Your task to perform on an android device: toggle wifi Image 0: 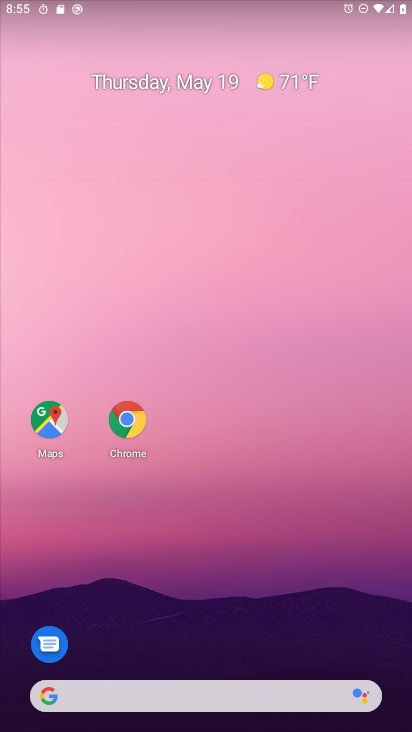
Step 0: drag from (164, 659) to (226, 217)
Your task to perform on an android device: toggle wifi Image 1: 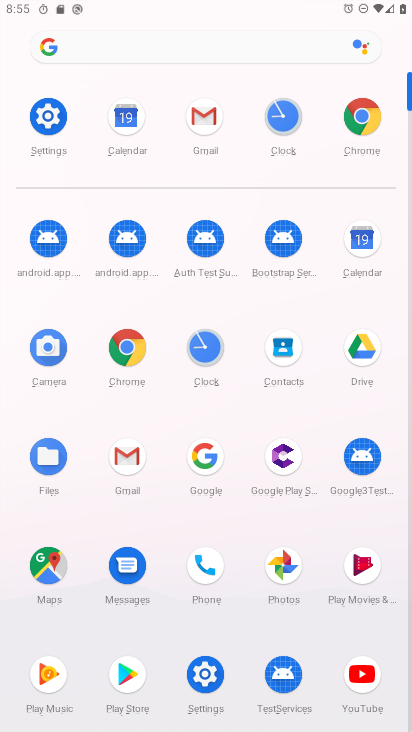
Step 1: click (55, 114)
Your task to perform on an android device: toggle wifi Image 2: 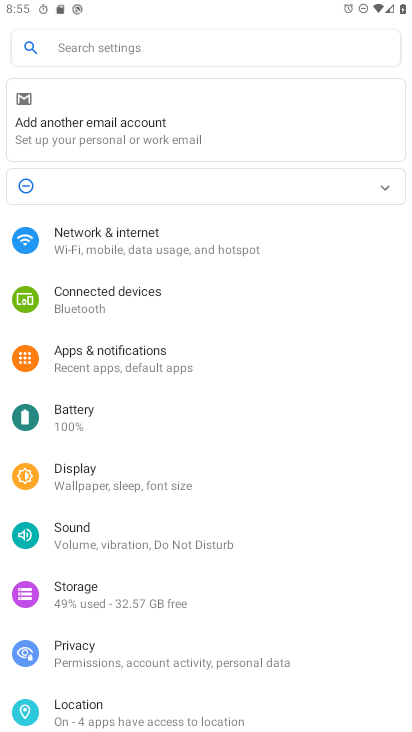
Step 2: click (167, 249)
Your task to perform on an android device: toggle wifi Image 3: 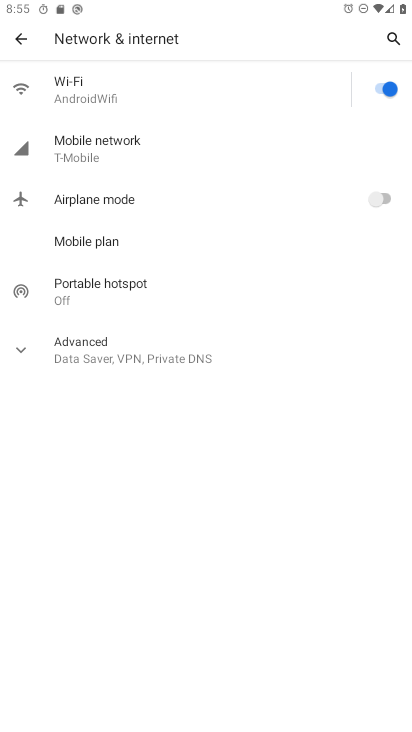
Step 3: click (383, 87)
Your task to perform on an android device: toggle wifi Image 4: 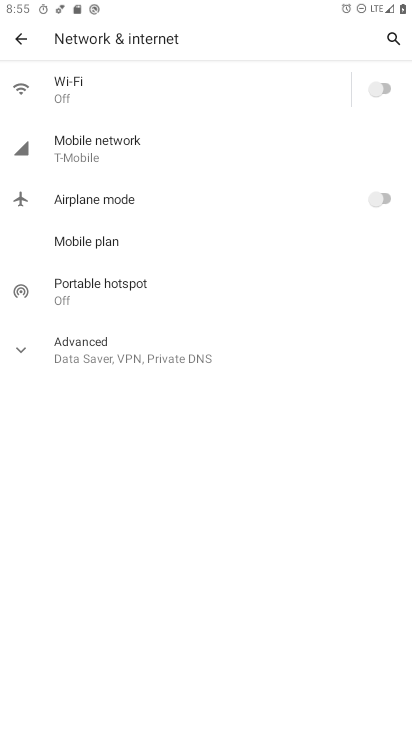
Step 4: task complete